Your task to perform on an android device: Open battery settings Image 0: 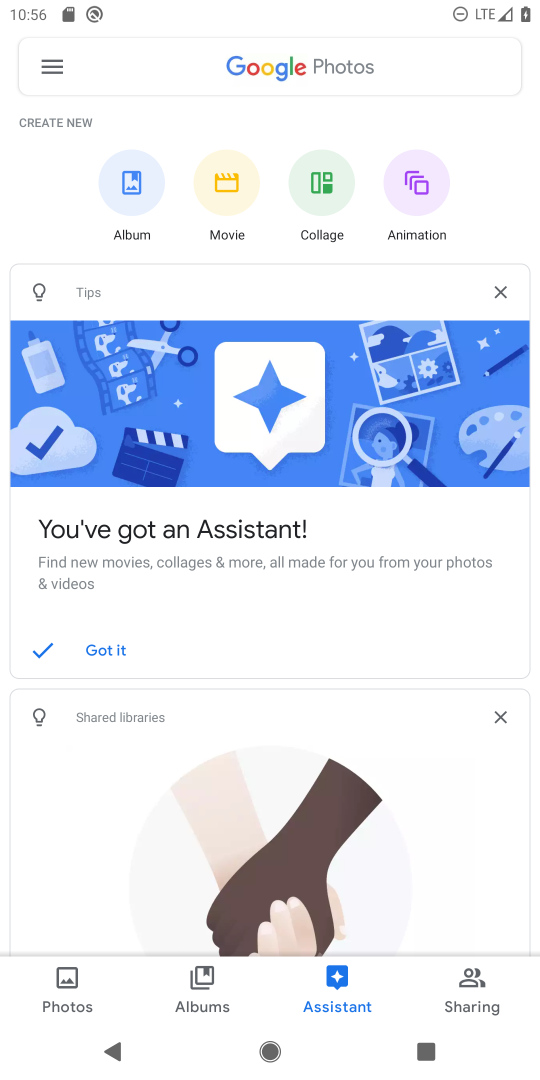
Step 0: press home button
Your task to perform on an android device: Open battery settings Image 1: 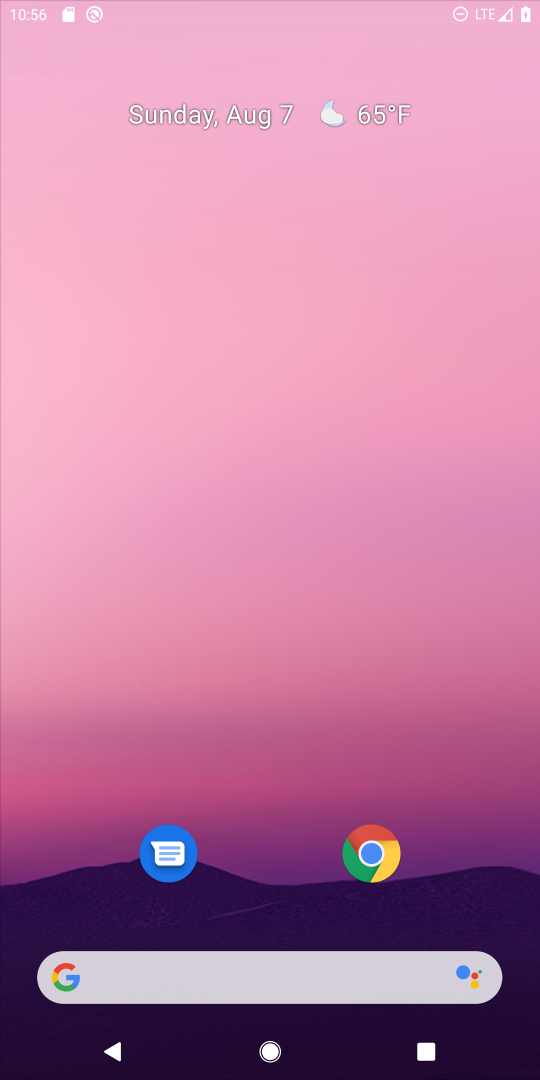
Step 1: drag from (258, 971) to (234, 322)
Your task to perform on an android device: Open battery settings Image 2: 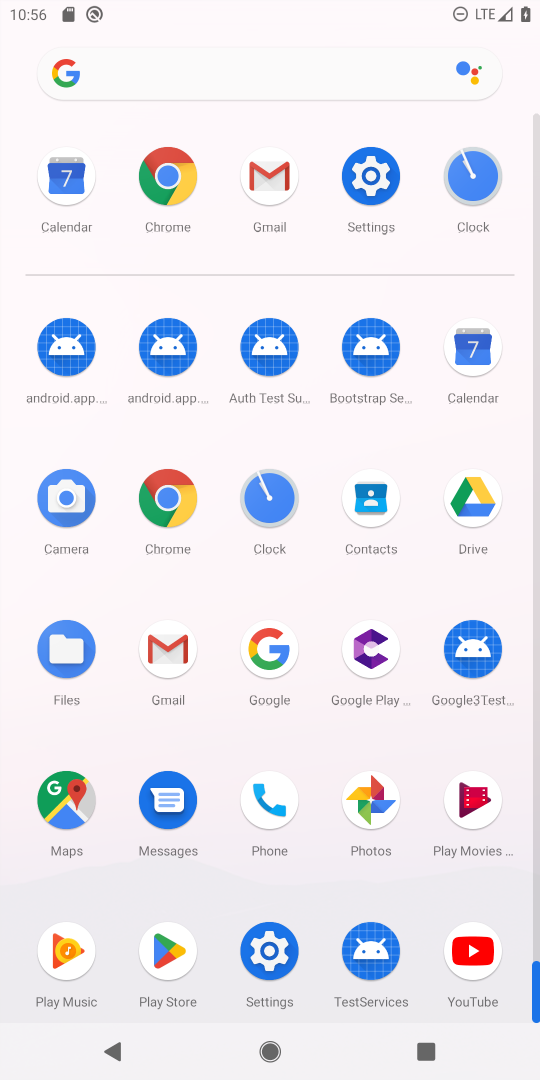
Step 2: click (362, 196)
Your task to perform on an android device: Open battery settings Image 3: 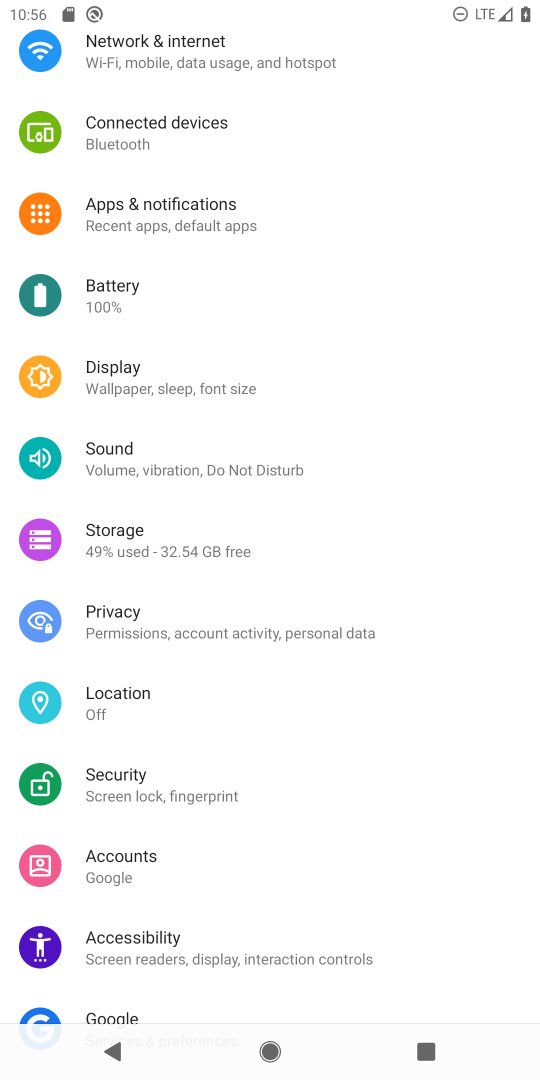
Step 3: click (97, 278)
Your task to perform on an android device: Open battery settings Image 4: 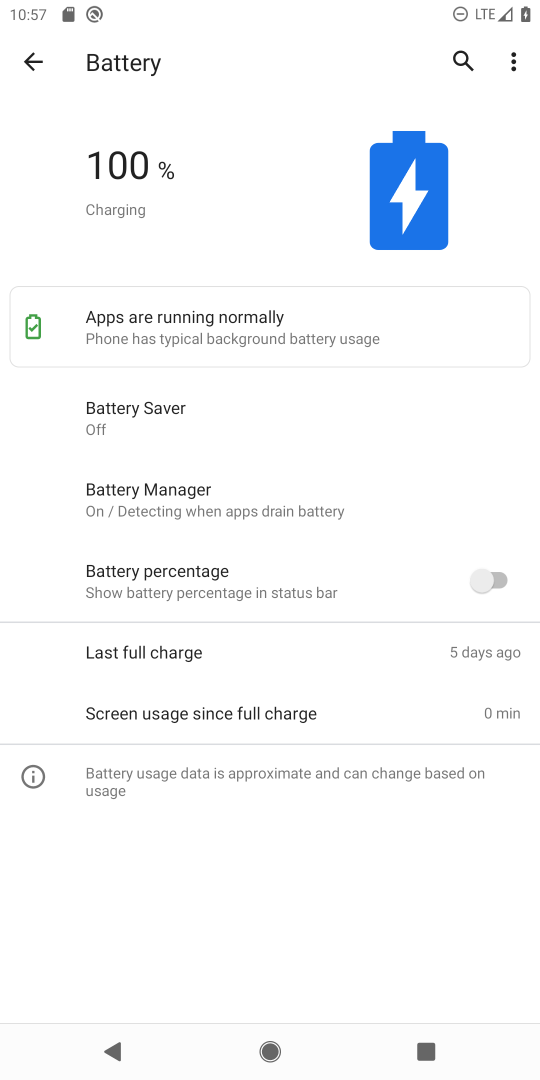
Step 4: task complete